Your task to perform on an android device: Empty the shopping cart on bestbuy.com. Search for "logitech g502" on bestbuy.com, select the first entry, add it to the cart, then select checkout. Image 0: 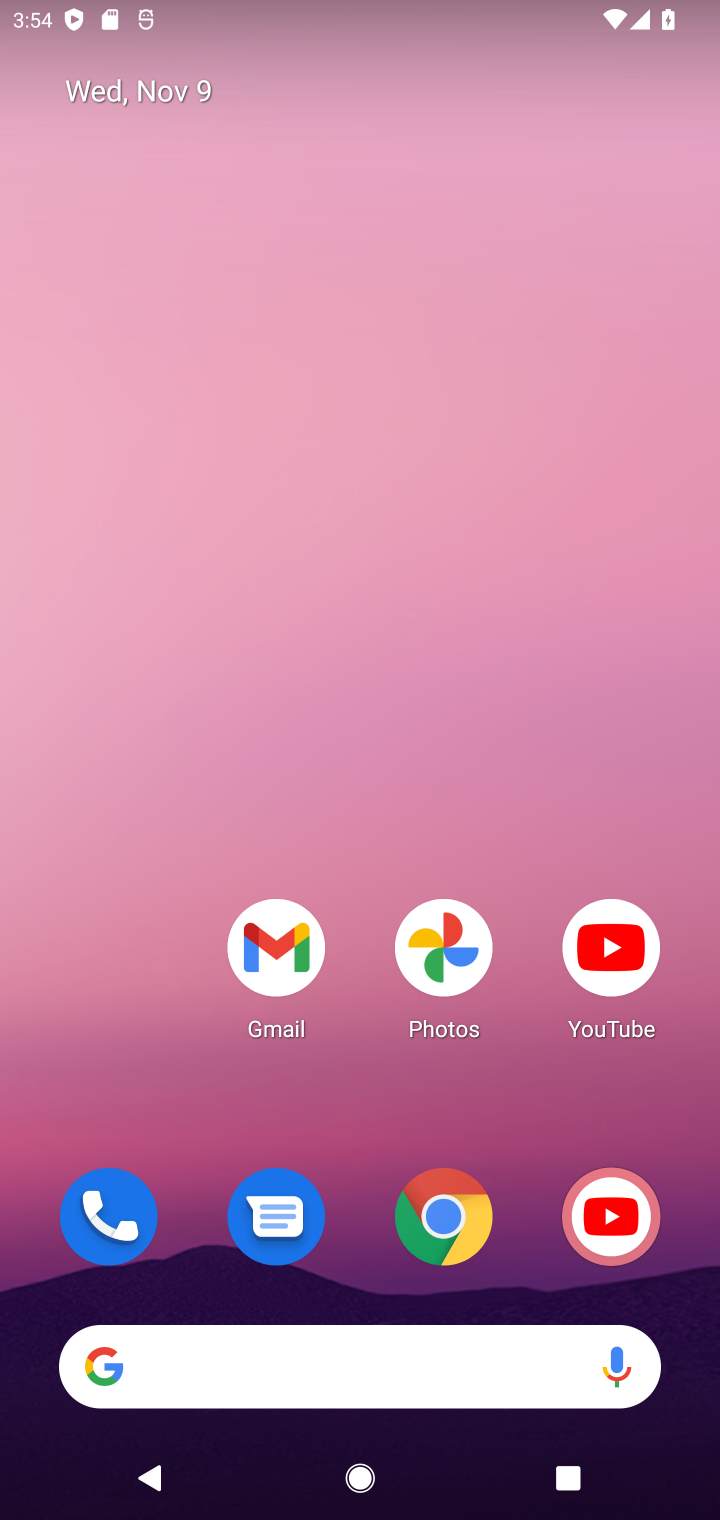
Step 0: press home button
Your task to perform on an android device: Empty the shopping cart on bestbuy.com. Search for "logitech g502" on bestbuy.com, select the first entry, add it to the cart, then select checkout. Image 1: 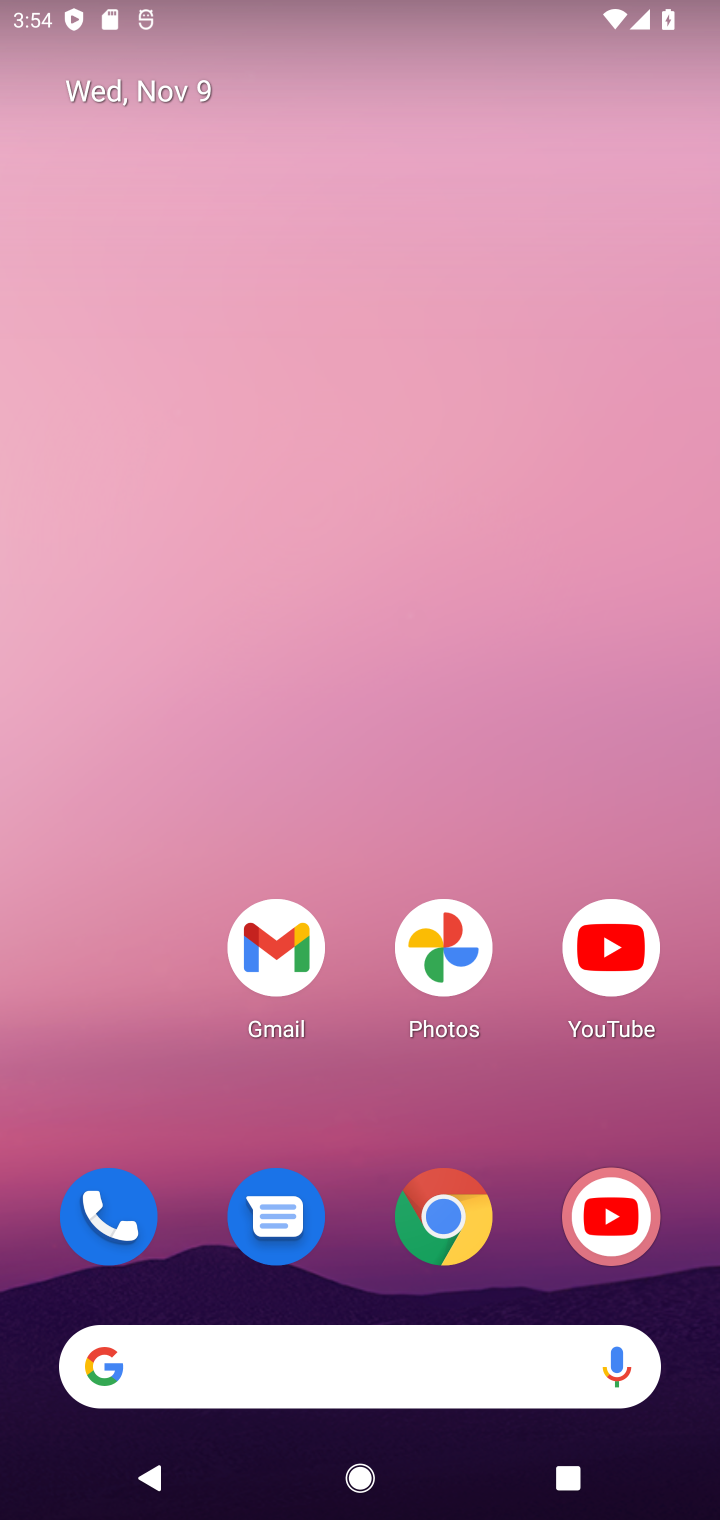
Step 1: drag from (353, 1071) to (331, 78)
Your task to perform on an android device: Empty the shopping cart on bestbuy.com. Search for "logitech g502" on bestbuy.com, select the first entry, add it to the cart, then select checkout. Image 2: 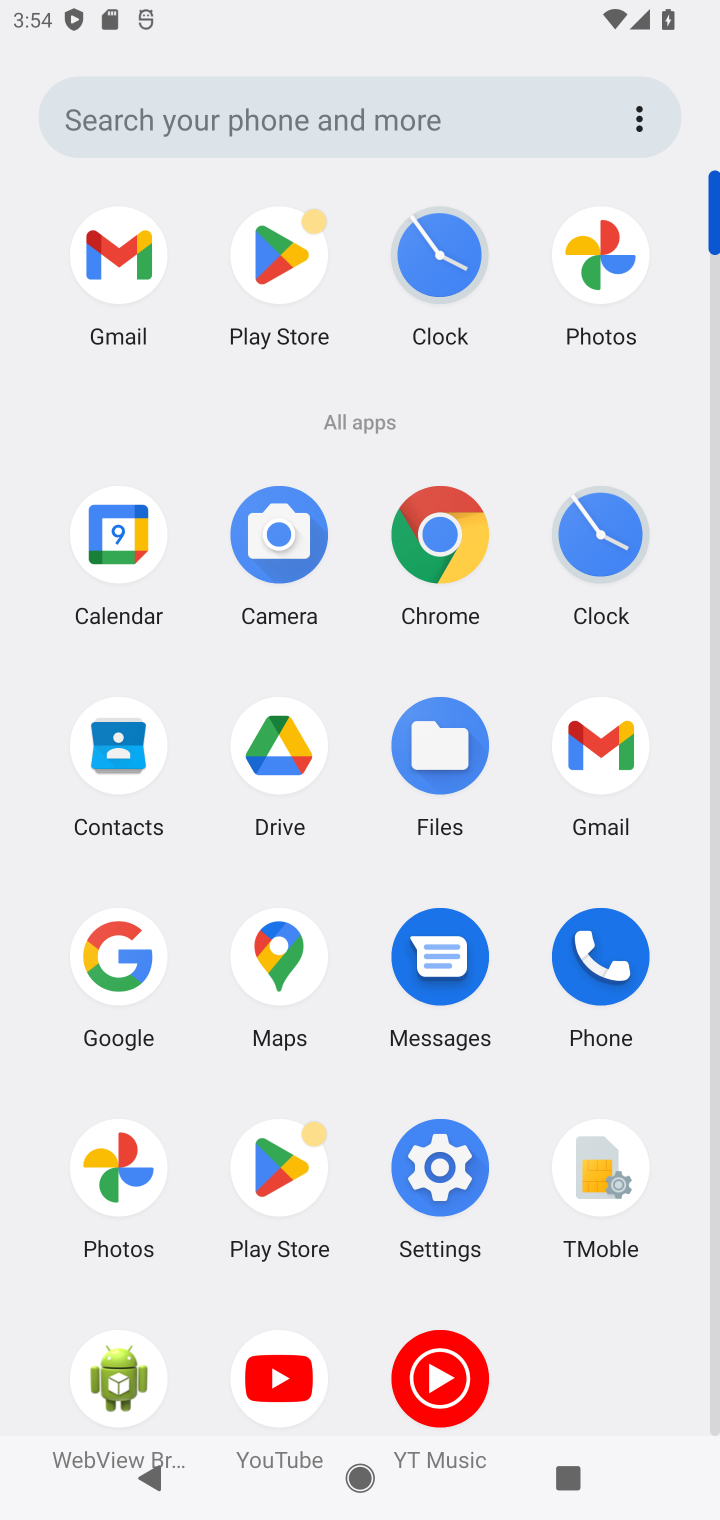
Step 2: click (428, 534)
Your task to perform on an android device: Empty the shopping cart on bestbuy.com. Search for "logitech g502" on bestbuy.com, select the first entry, add it to the cart, then select checkout. Image 3: 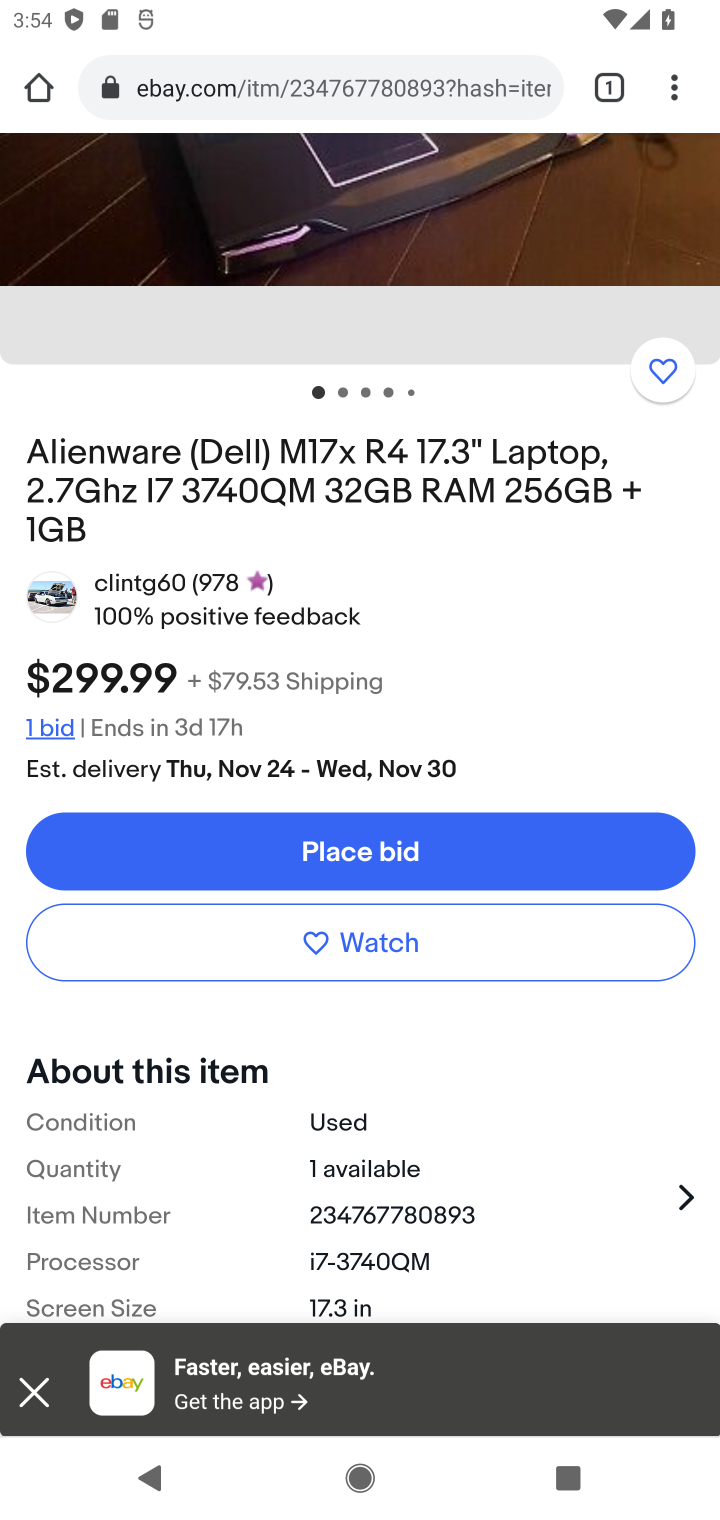
Step 3: click (490, 99)
Your task to perform on an android device: Empty the shopping cart on bestbuy.com. Search for "logitech g502" on bestbuy.com, select the first entry, add it to the cart, then select checkout. Image 4: 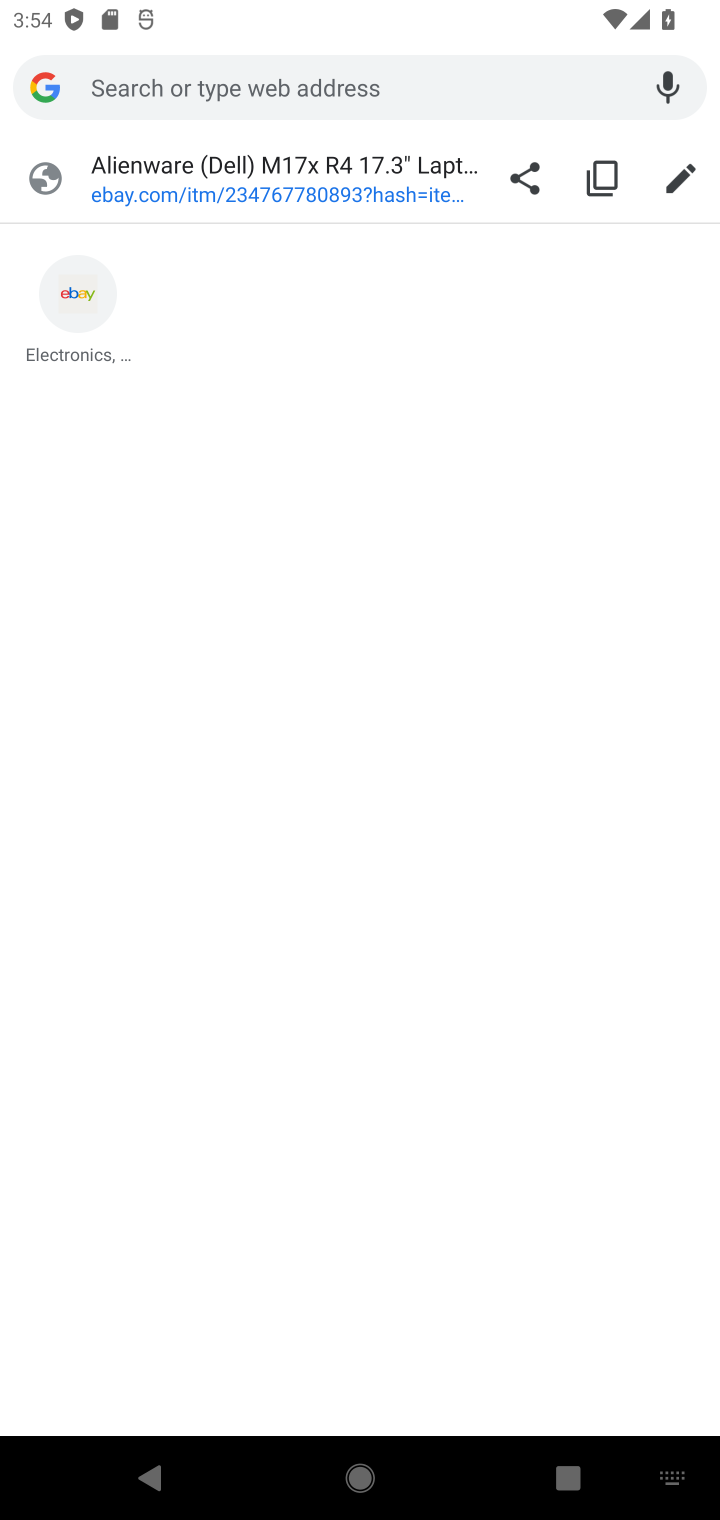
Step 4: type "bestbuy.com"
Your task to perform on an android device: Empty the shopping cart on bestbuy.com. Search for "logitech g502" on bestbuy.com, select the first entry, add it to the cart, then select checkout. Image 5: 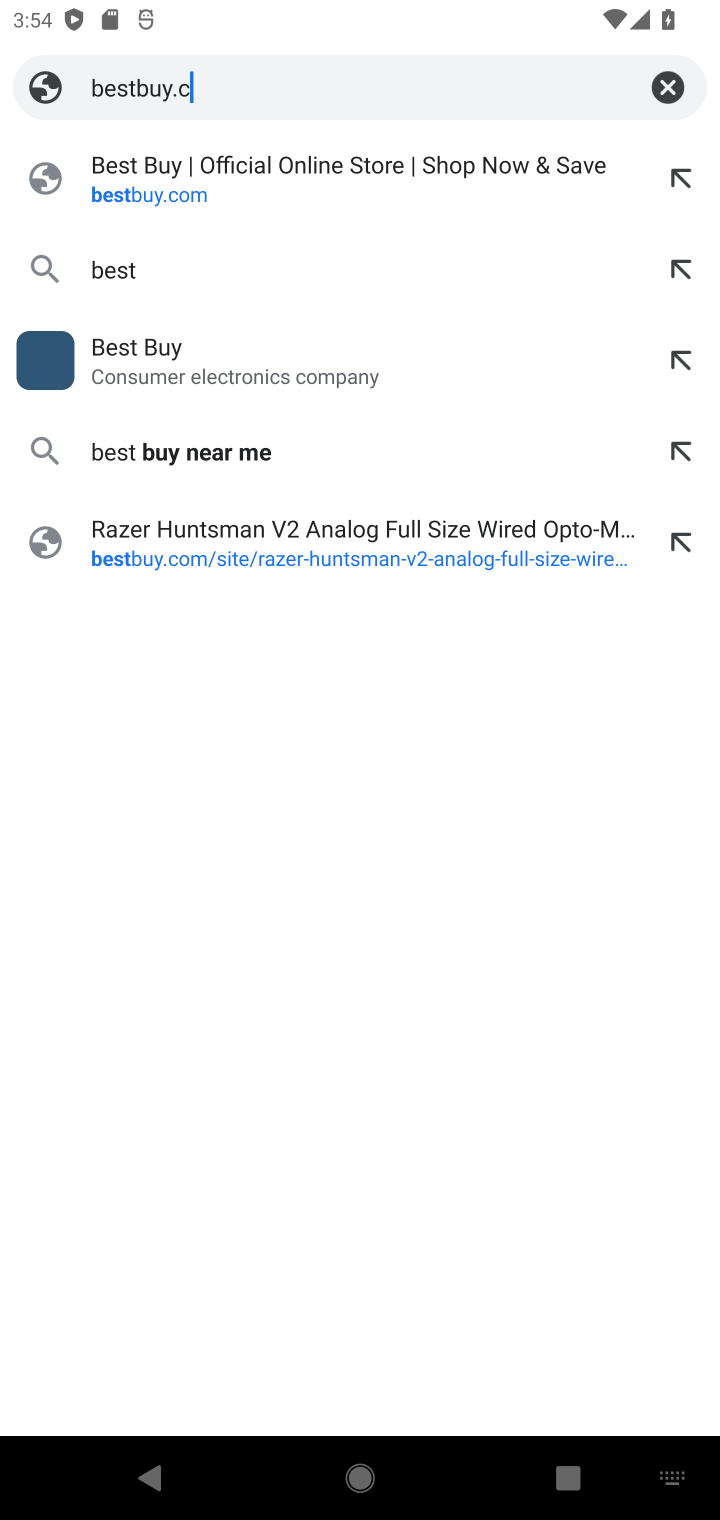
Step 5: press enter
Your task to perform on an android device: Empty the shopping cart on bestbuy.com. Search for "logitech g502" on bestbuy.com, select the first entry, add it to the cart, then select checkout. Image 6: 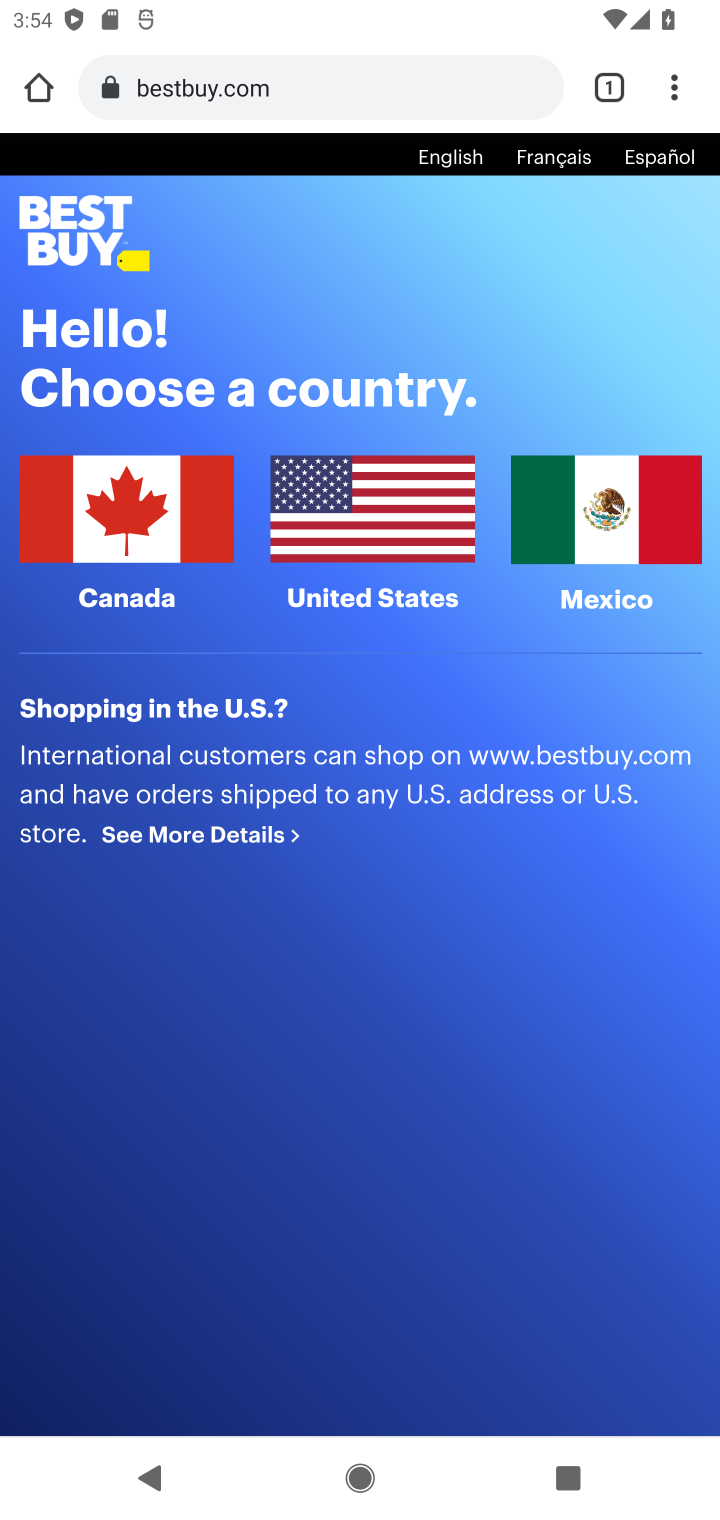
Step 6: click (151, 516)
Your task to perform on an android device: Empty the shopping cart on bestbuy.com. Search for "logitech g502" on bestbuy.com, select the first entry, add it to the cart, then select checkout. Image 7: 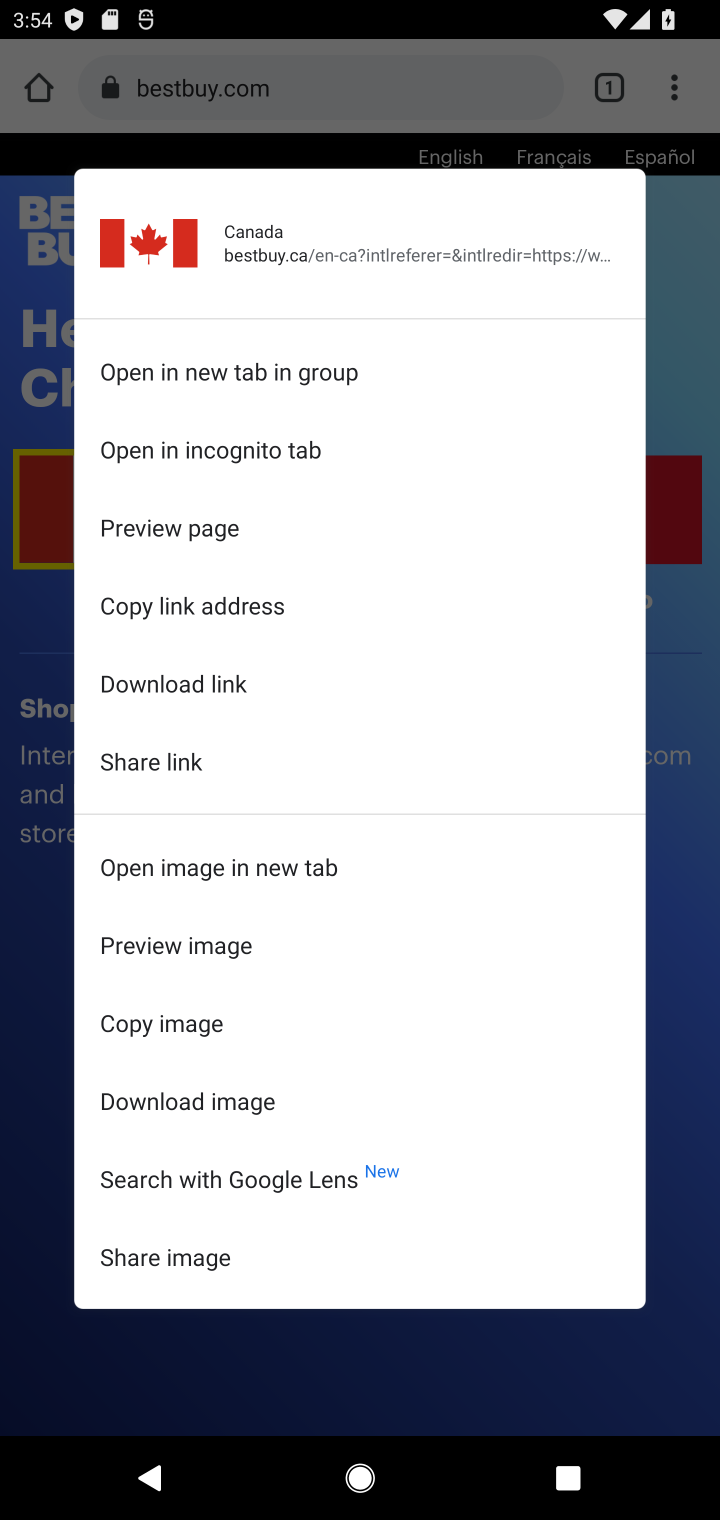
Step 7: click (41, 512)
Your task to perform on an android device: Empty the shopping cart on bestbuy.com. Search for "logitech g502" on bestbuy.com, select the first entry, add it to the cart, then select checkout. Image 8: 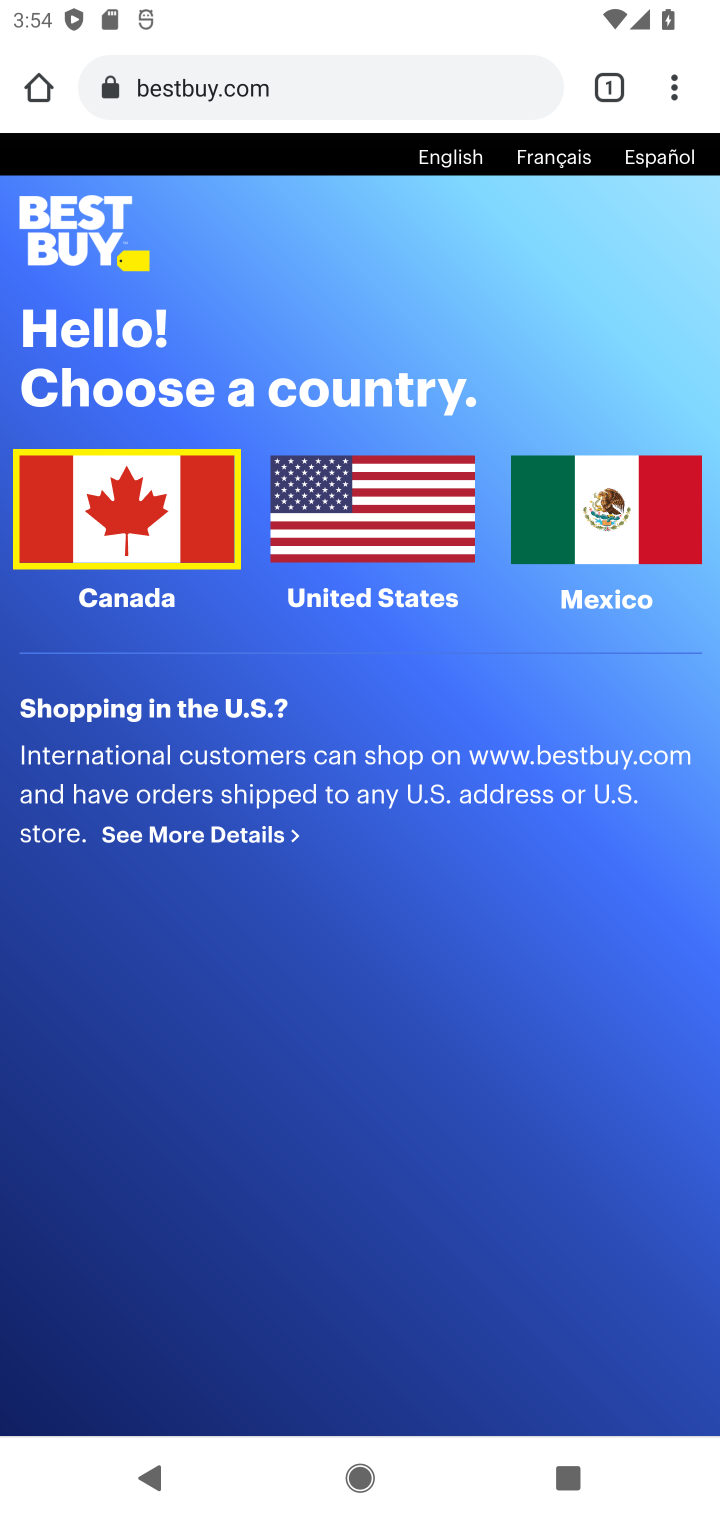
Step 8: click (94, 513)
Your task to perform on an android device: Empty the shopping cart on bestbuy.com. Search for "logitech g502" on bestbuy.com, select the first entry, add it to the cart, then select checkout. Image 9: 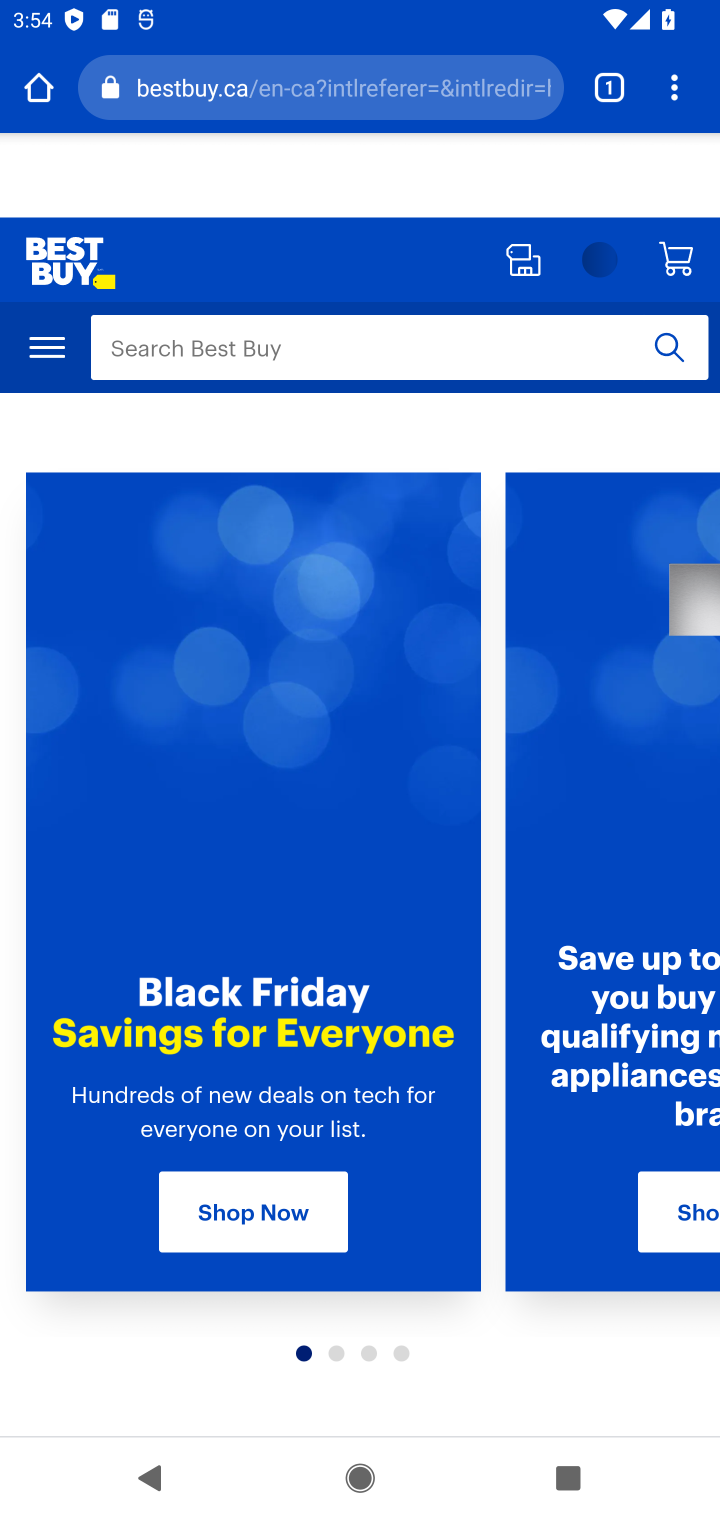
Step 9: click (683, 267)
Your task to perform on an android device: Empty the shopping cart on bestbuy.com. Search for "logitech g502" on bestbuy.com, select the first entry, add it to the cart, then select checkout. Image 10: 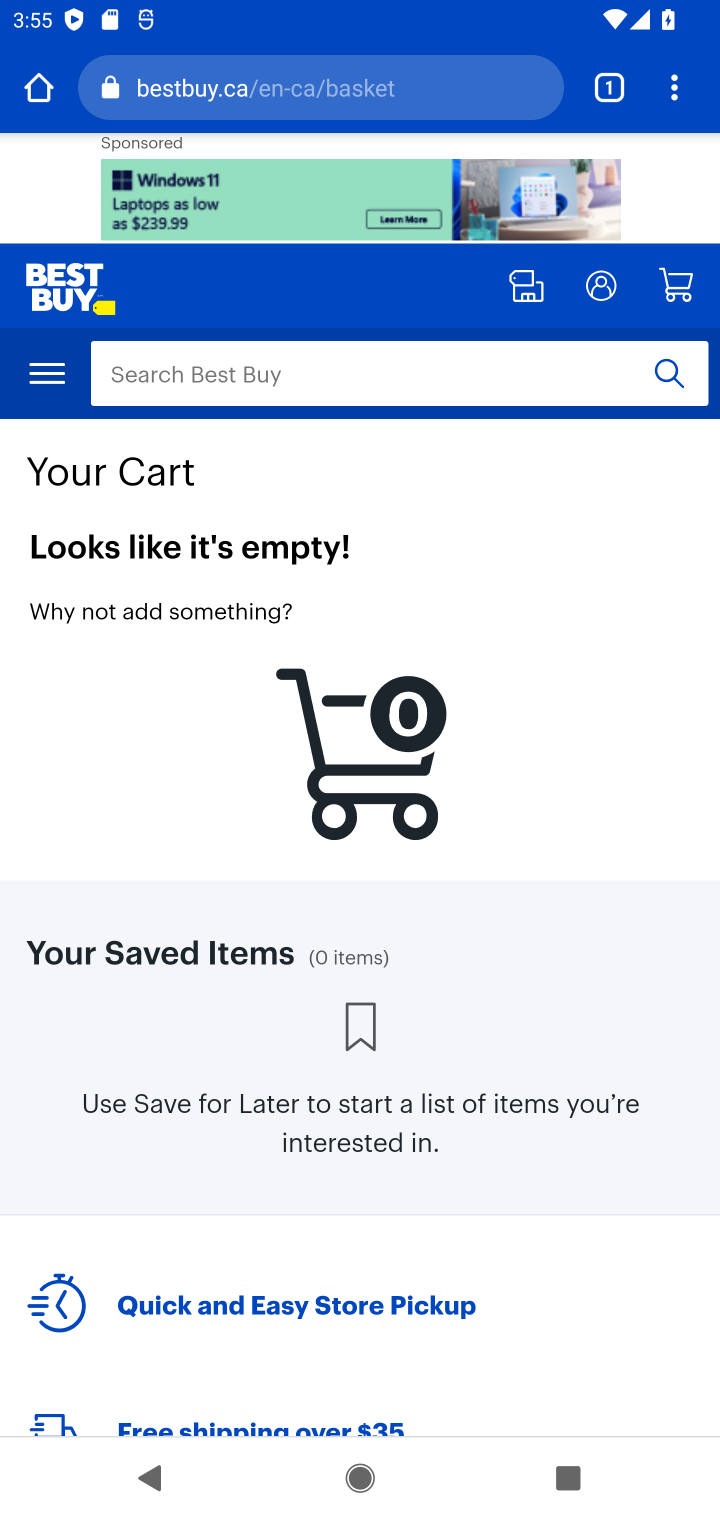
Step 10: click (343, 386)
Your task to perform on an android device: Empty the shopping cart on bestbuy.com. Search for "logitech g502" on bestbuy.com, select the first entry, add it to the cart, then select checkout. Image 11: 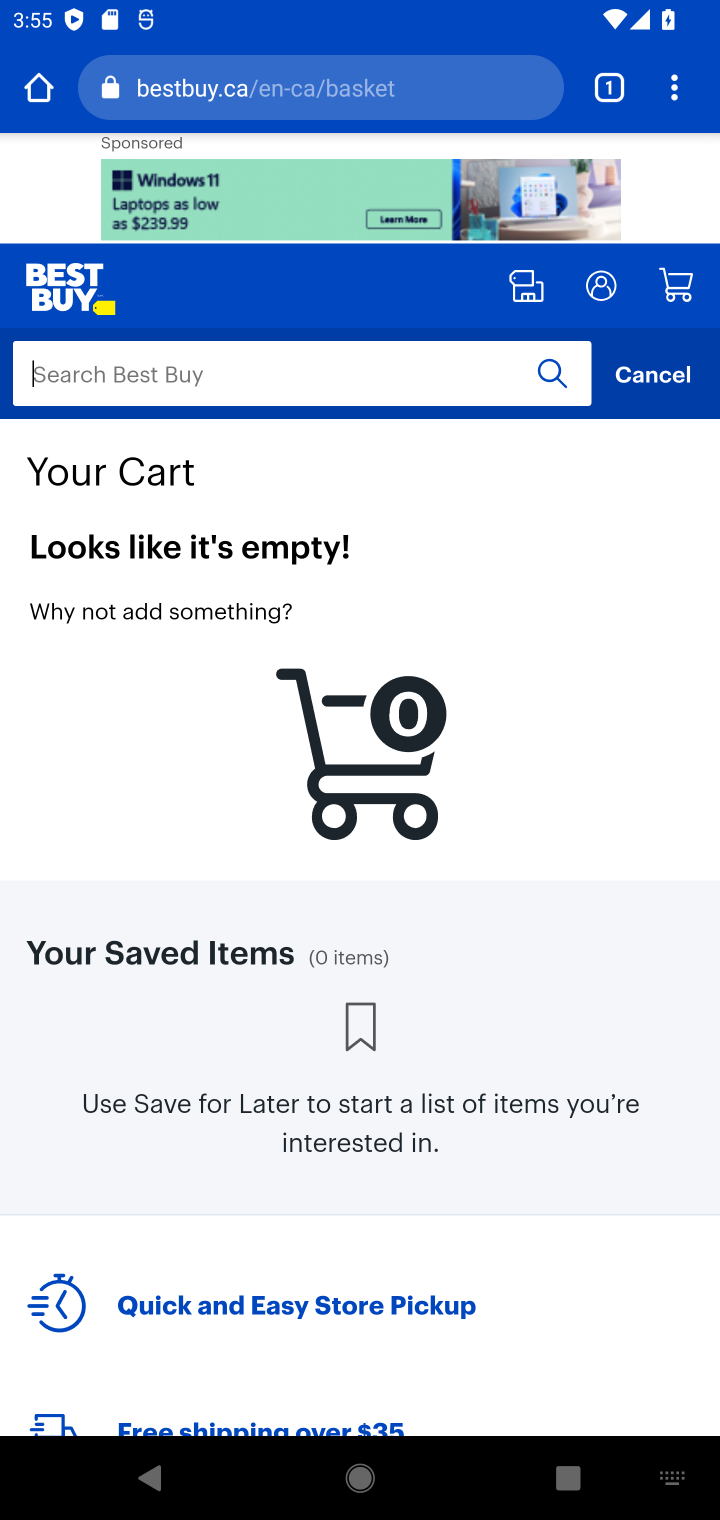
Step 11: type "logitech g502"
Your task to perform on an android device: Empty the shopping cart on bestbuy.com. Search for "logitech g502" on bestbuy.com, select the first entry, add it to the cart, then select checkout. Image 12: 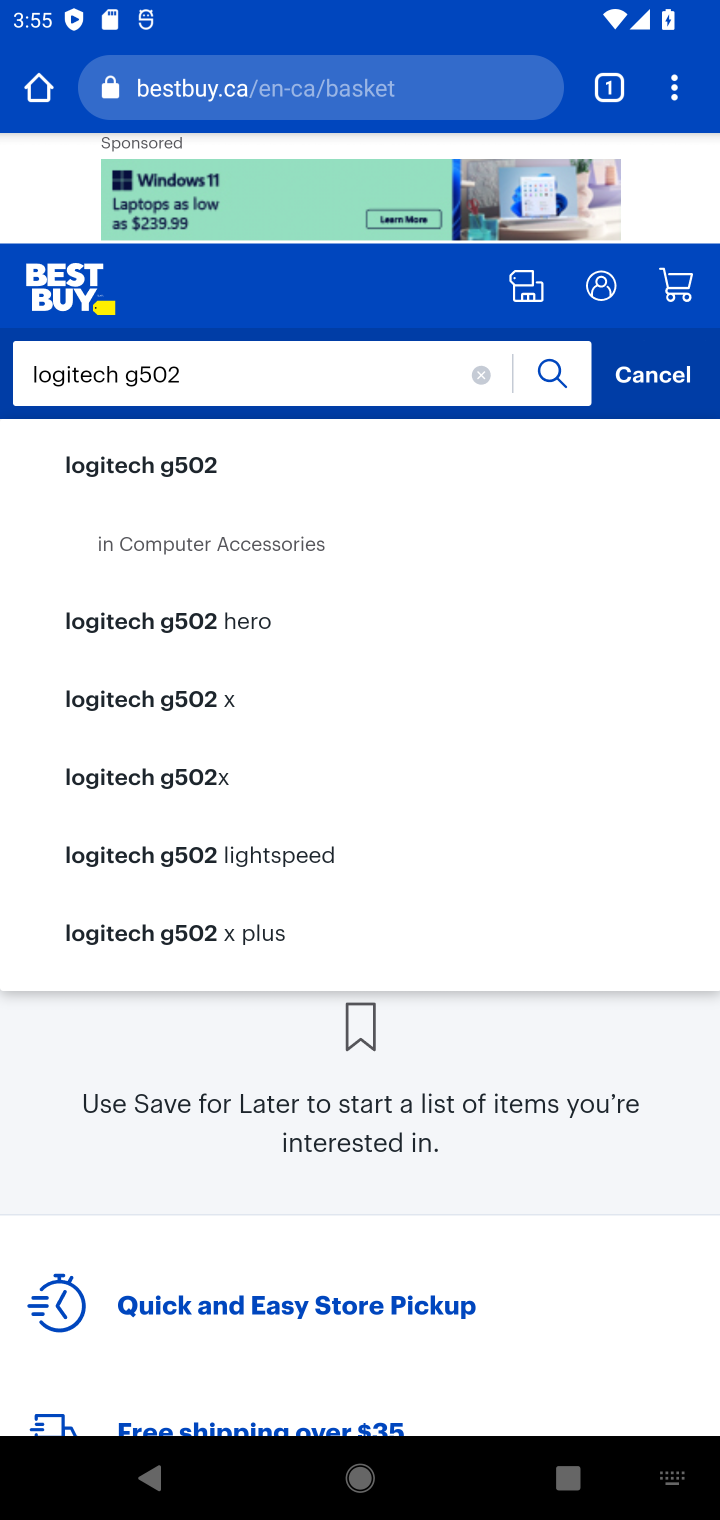
Step 12: press enter
Your task to perform on an android device: Empty the shopping cart on bestbuy.com. Search for "logitech g502" on bestbuy.com, select the first entry, add it to the cart, then select checkout. Image 13: 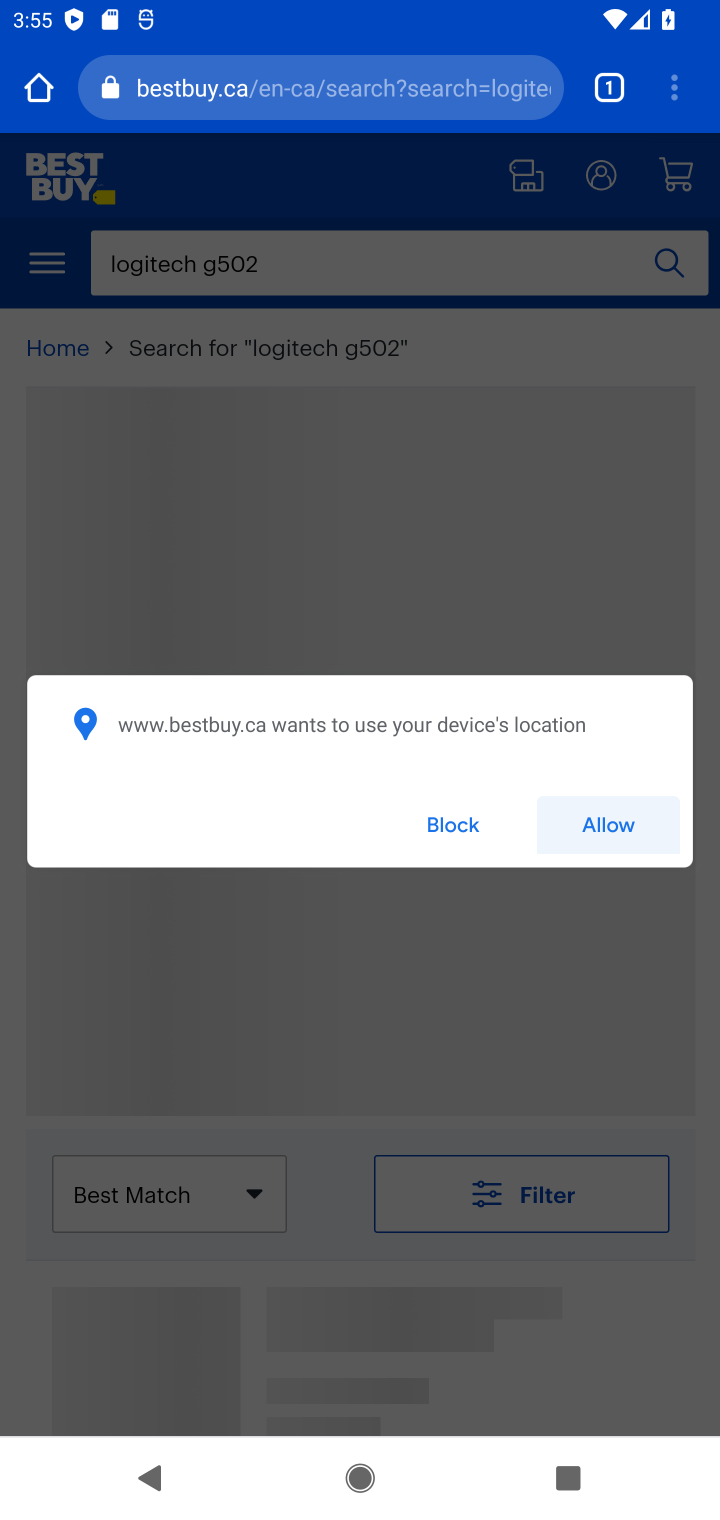
Step 13: click (443, 816)
Your task to perform on an android device: Empty the shopping cart on bestbuy.com. Search for "logitech g502" on bestbuy.com, select the first entry, add it to the cart, then select checkout. Image 14: 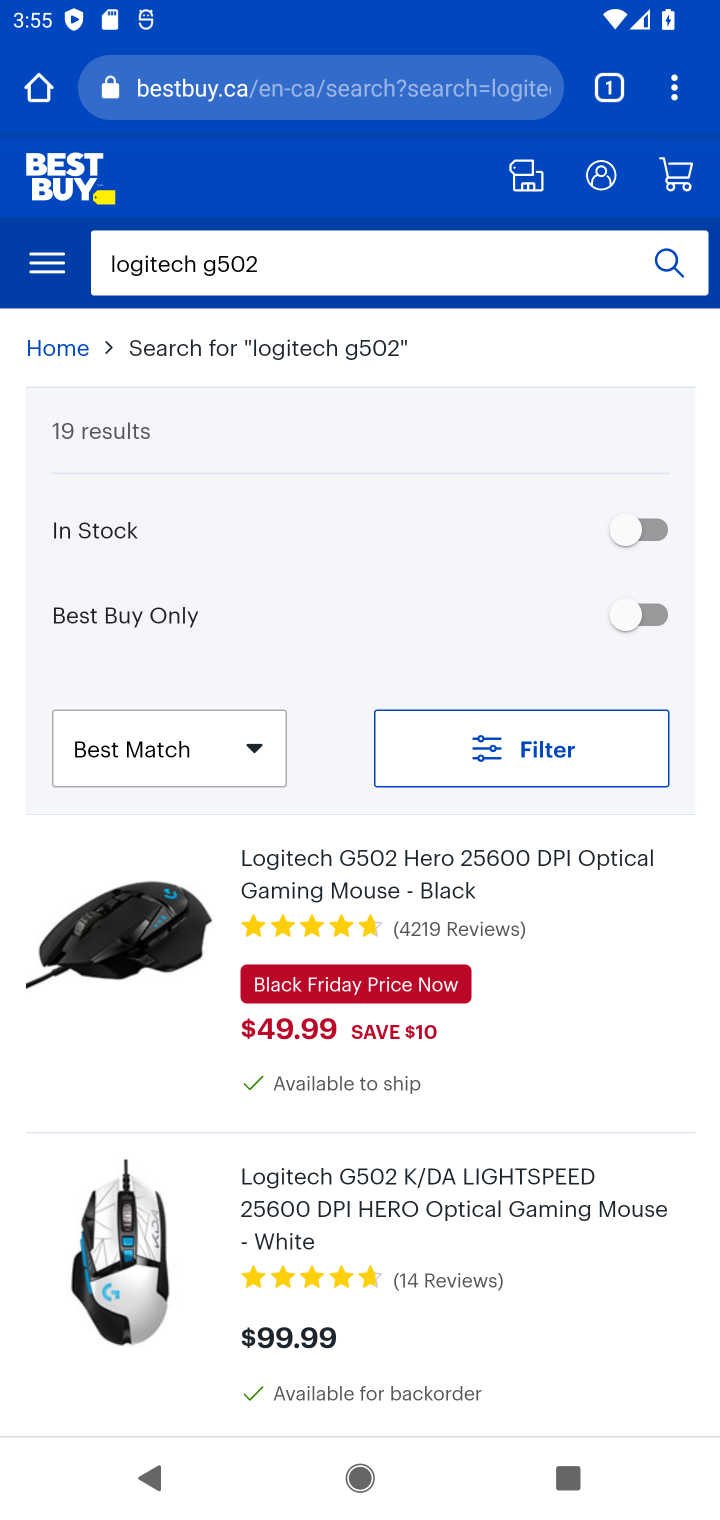
Step 14: click (407, 882)
Your task to perform on an android device: Empty the shopping cart on bestbuy.com. Search for "logitech g502" on bestbuy.com, select the first entry, add it to the cart, then select checkout. Image 15: 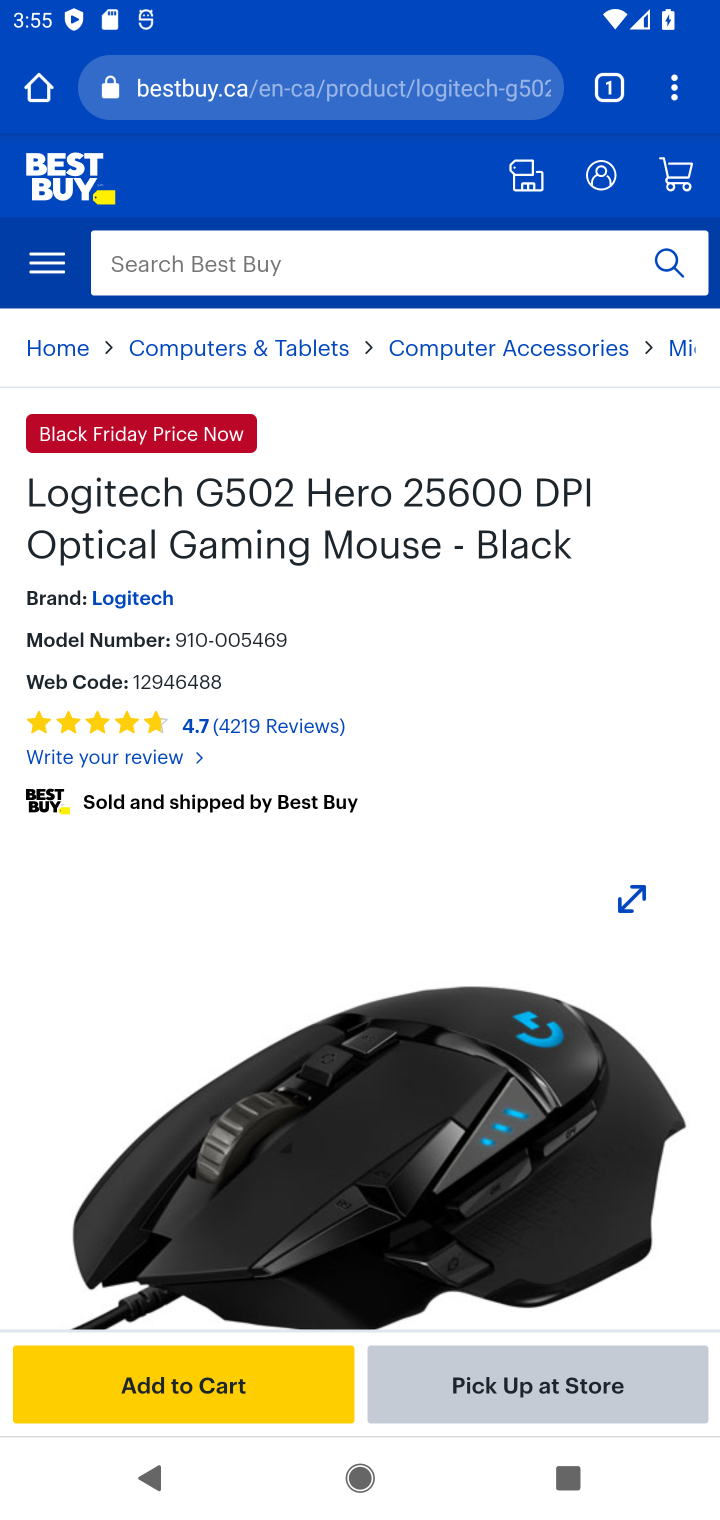
Step 15: click (574, 912)
Your task to perform on an android device: Empty the shopping cart on bestbuy.com. Search for "logitech g502" on bestbuy.com, select the first entry, add it to the cart, then select checkout. Image 16: 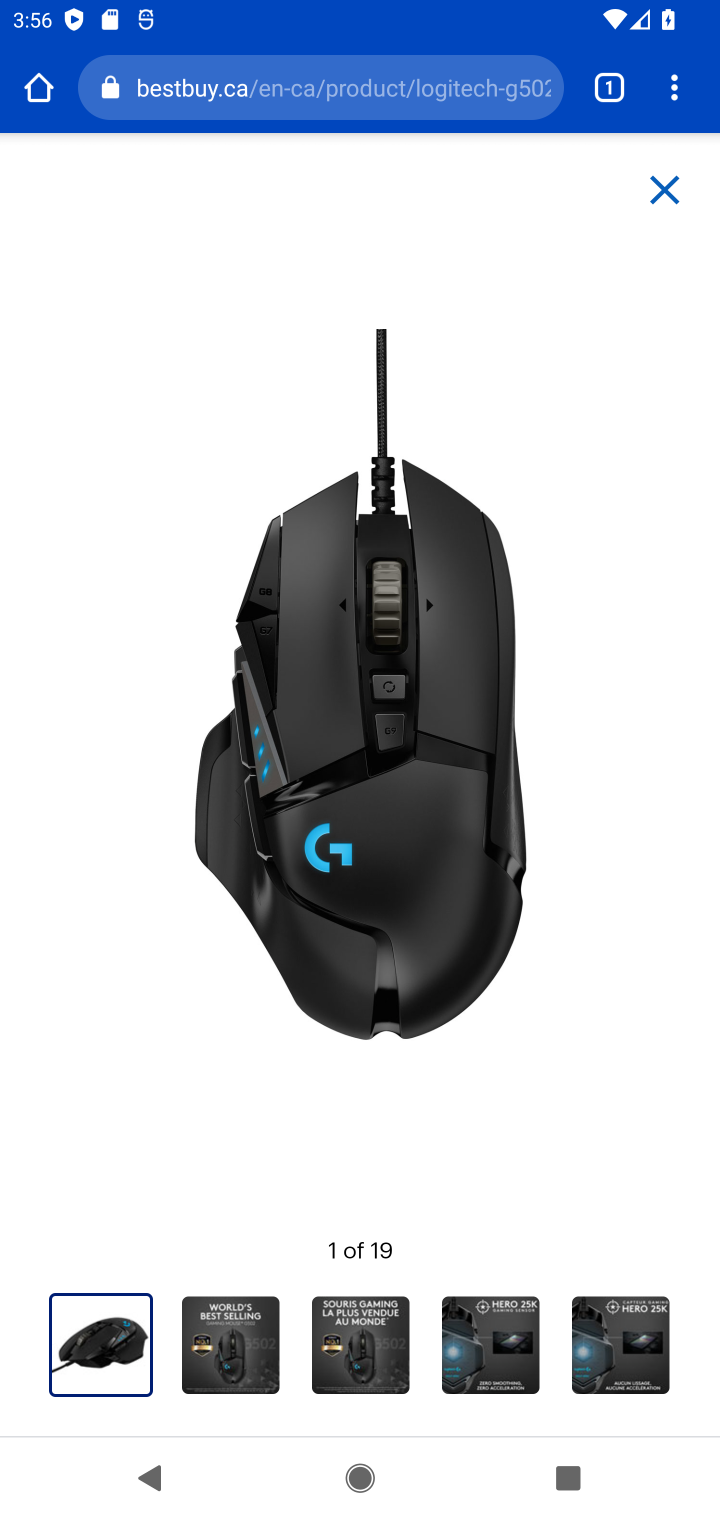
Step 16: click (574, 912)
Your task to perform on an android device: Empty the shopping cart on bestbuy.com. Search for "logitech g502" on bestbuy.com, select the first entry, add it to the cart, then select checkout. Image 17: 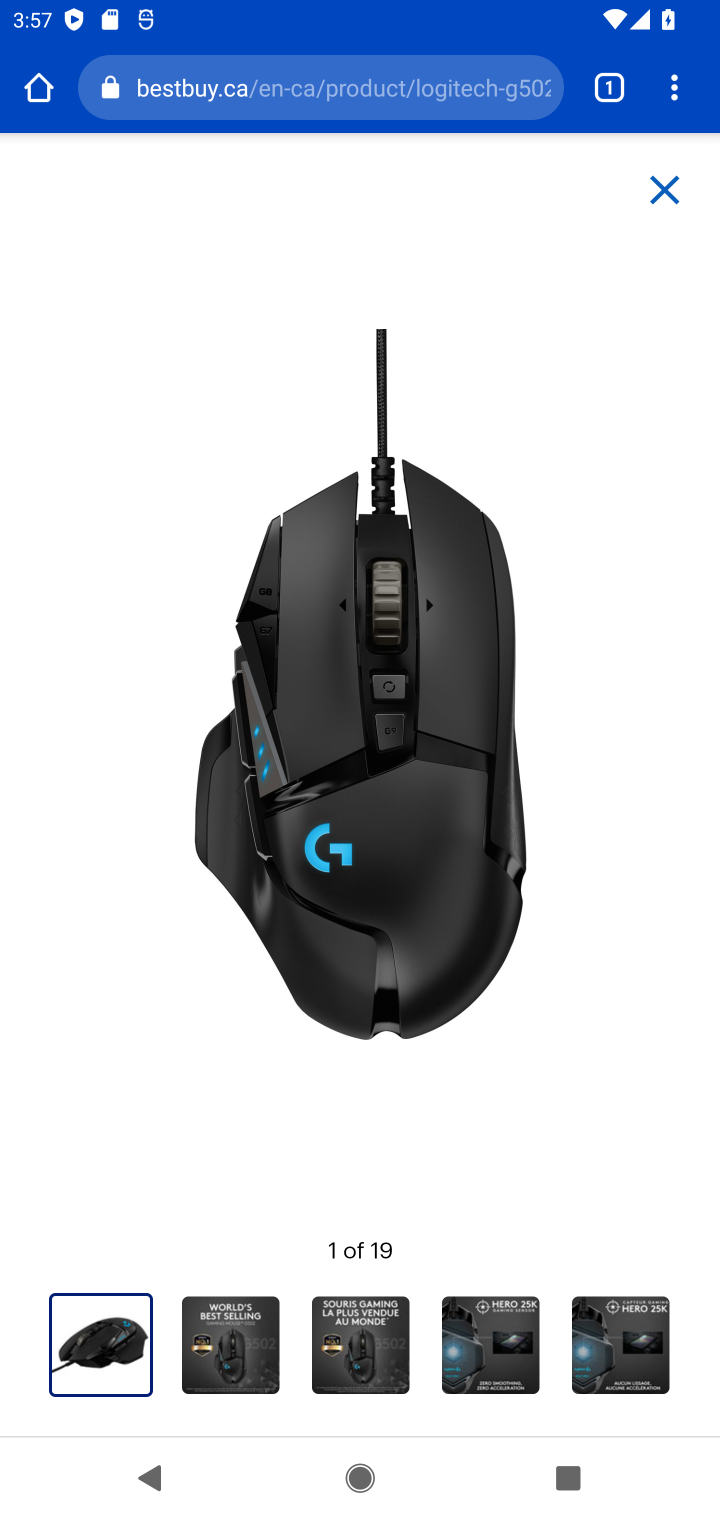
Step 17: click (668, 188)
Your task to perform on an android device: Empty the shopping cart on bestbuy.com. Search for "logitech g502" on bestbuy.com, select the first entry, add it to the cart, then select checkout. Image 18: 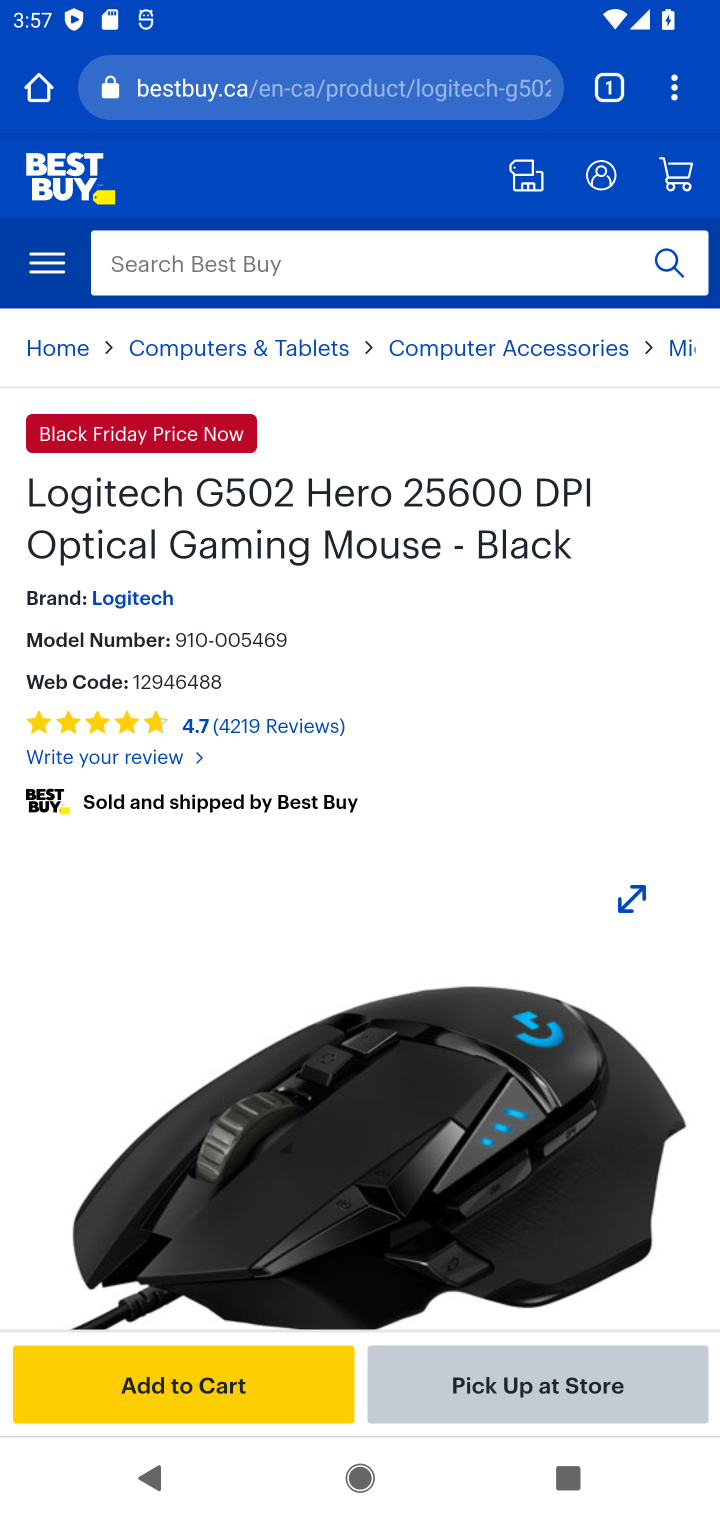
Step 18: click (232, 1394)
Your task to perform on an android device: Empty the shopping cart on bestbuy.com. Search for "logitech g502" on bestbuy.com, select the first entry, add it to the cart, then select checkout. Image 19: 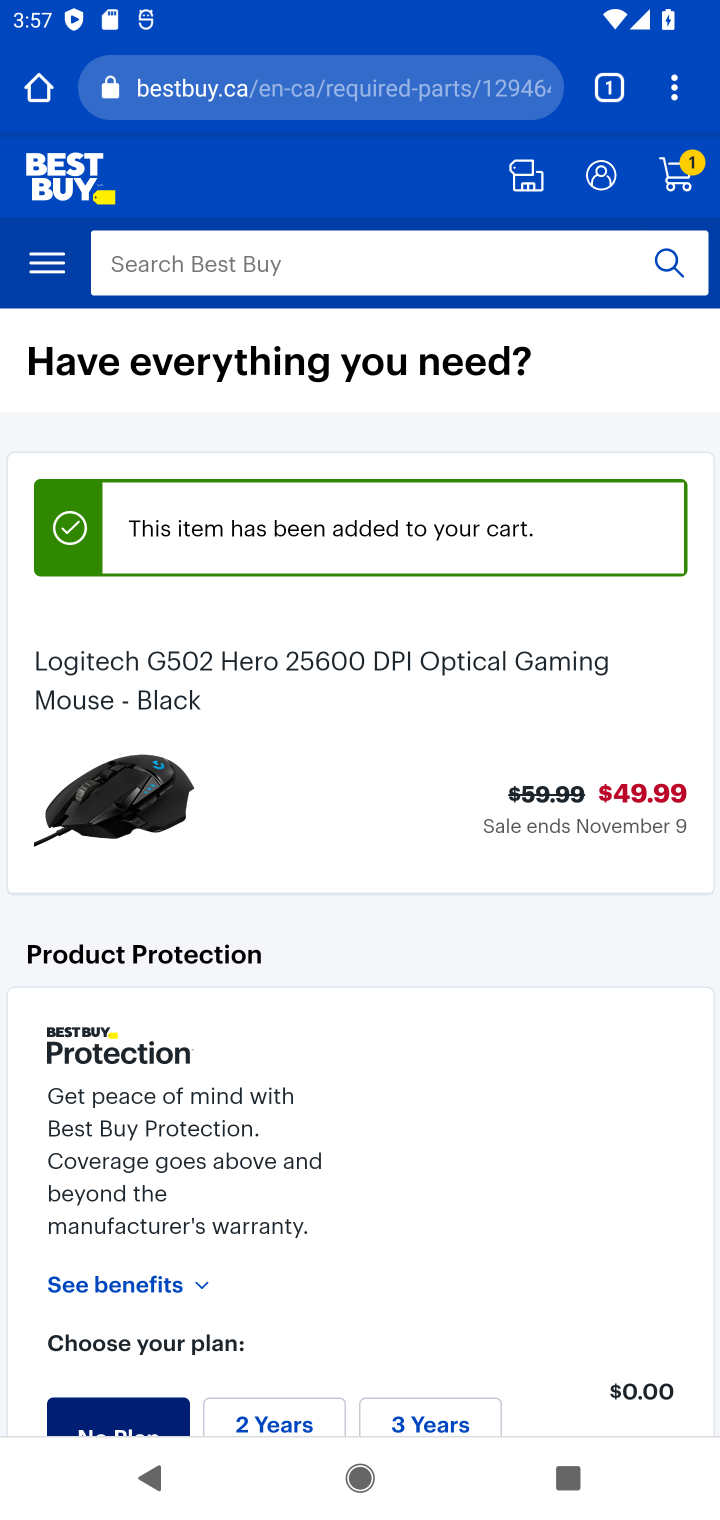
Step 19: drag from (447, 1137) to (469, 430)
Your task to perform on an android device: Empty the shopping cart on bestbuy.com. Search for "logitech g502" on bestbuy.com, select the first entry, add it to the cart, then select checkout. Image 20: 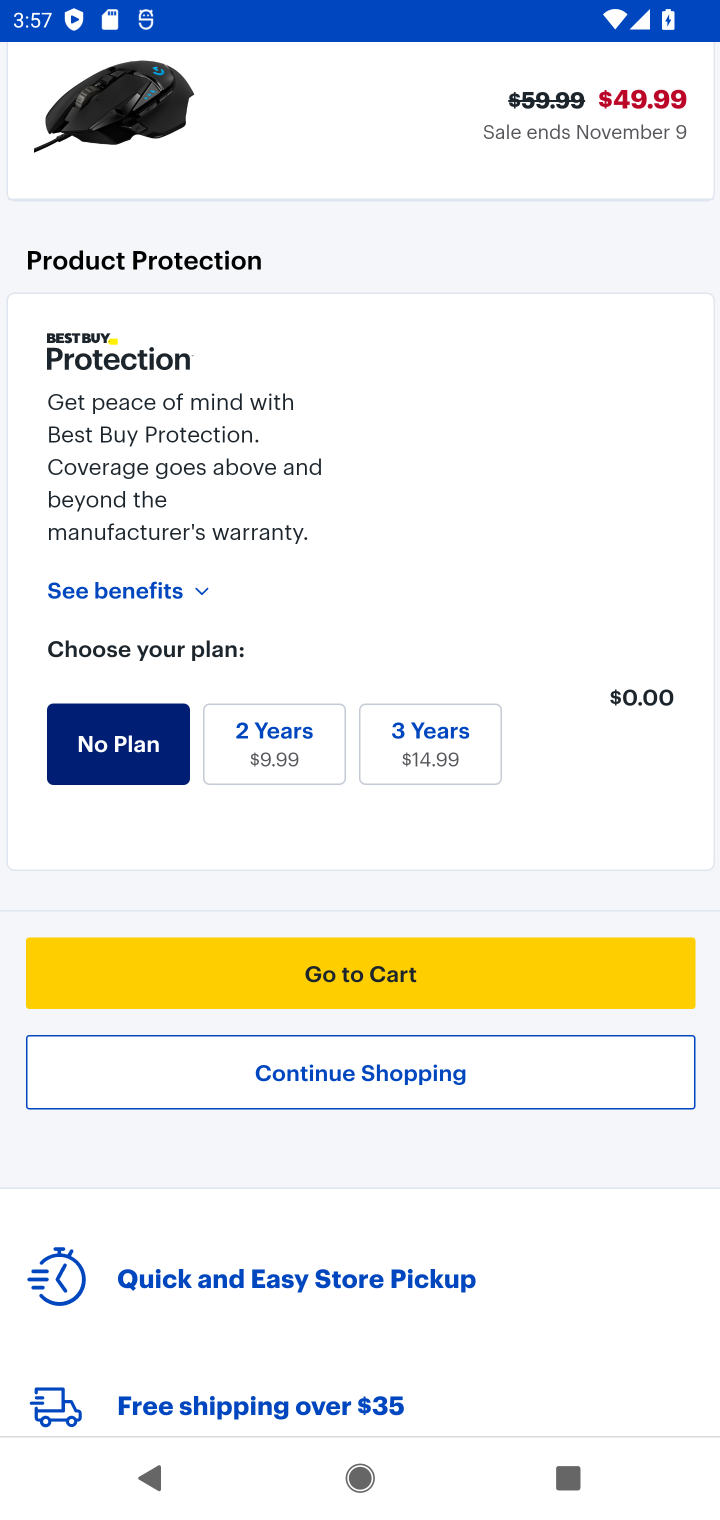
Step 20: click (497, 985)
Your task to perform on an android device: Empty the shopping cart on bestbuy.com. Search for "logitech g502" on bestbuy.com, select the first entry, add it to the cart, then select checkout. Image 21: 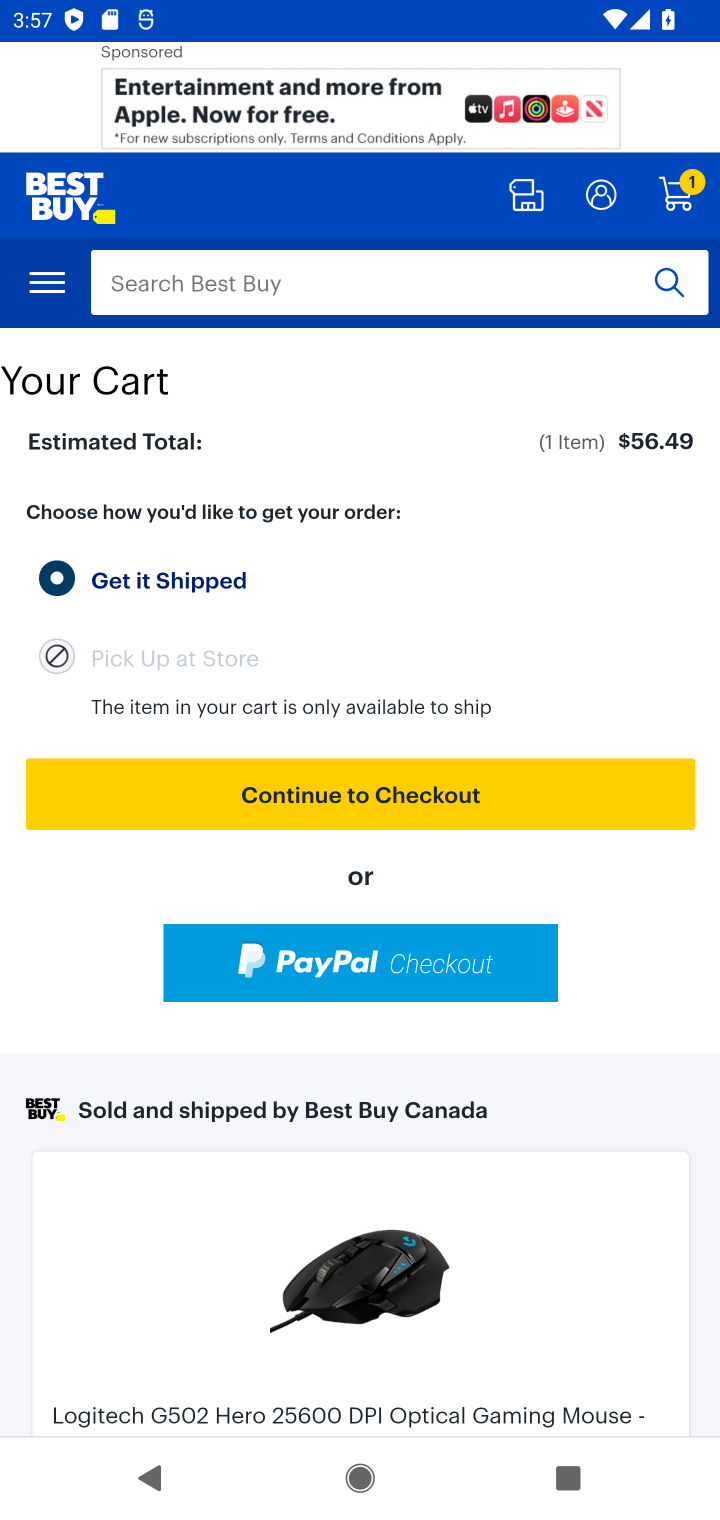
Step 21: click (436, 794)
Your task to perform on an android device: Empty the shopping cart on bestbuy.com. Search for "logitech g502" on bestbuy.com, select the first entry, add it to the cart, then select checkout. Image 22: 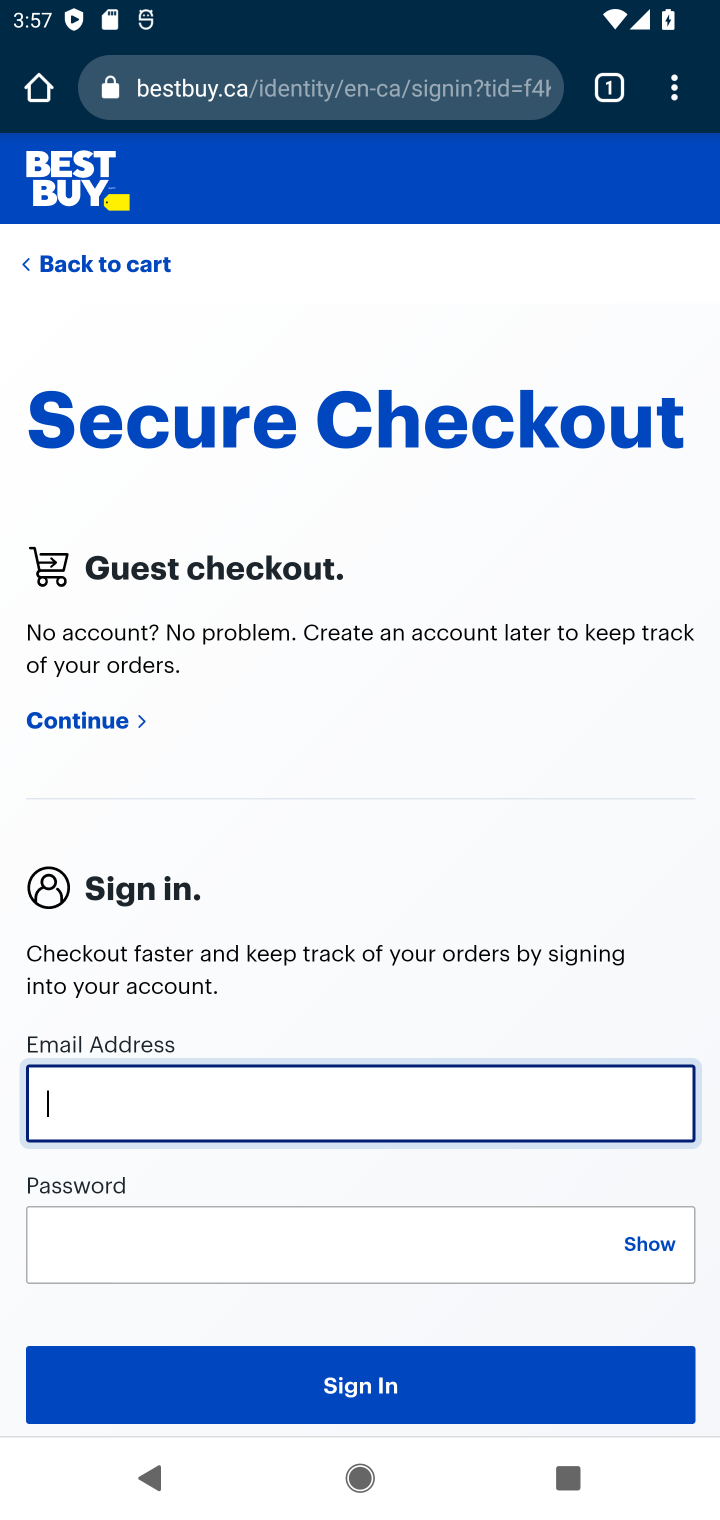
Step 22: task complete